Your task to perform on an android device: Go to Amazon Image 0: 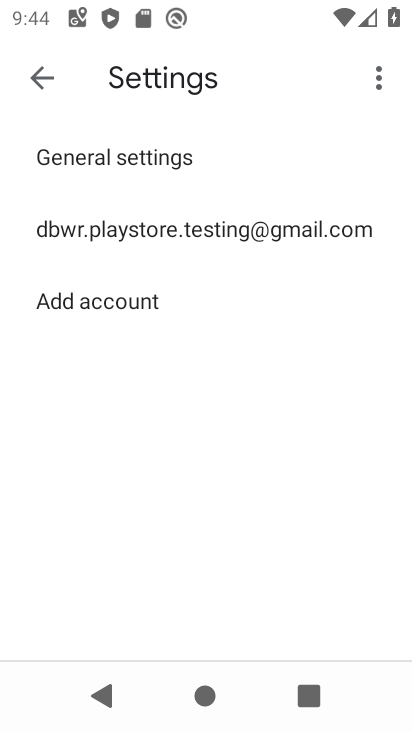
Step 0: press home button
Your task to perform on an android device: Go to Amazon Image 1: 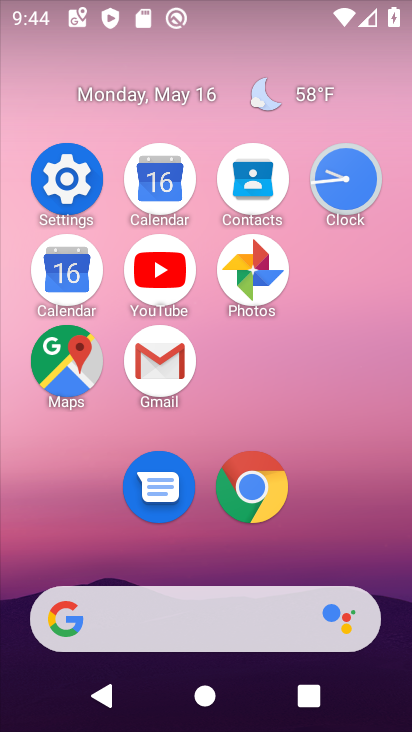
Step 1: click (243, 490)
Your task to perform on an android device: Go to Amazon Image 2: 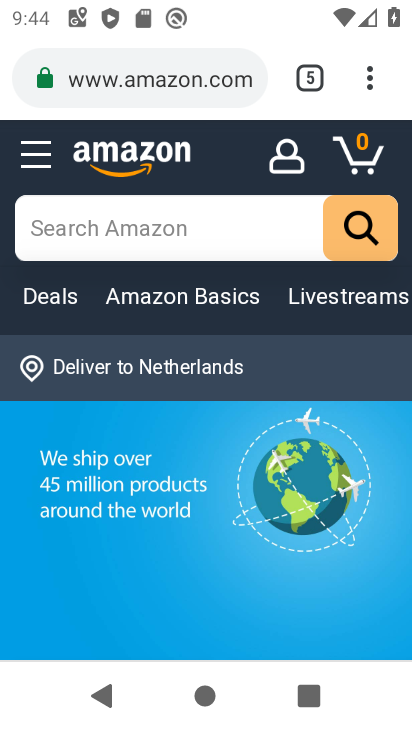
Step 2: task complete